Your task to perform on an android device: Go to wifi settings Image 0: 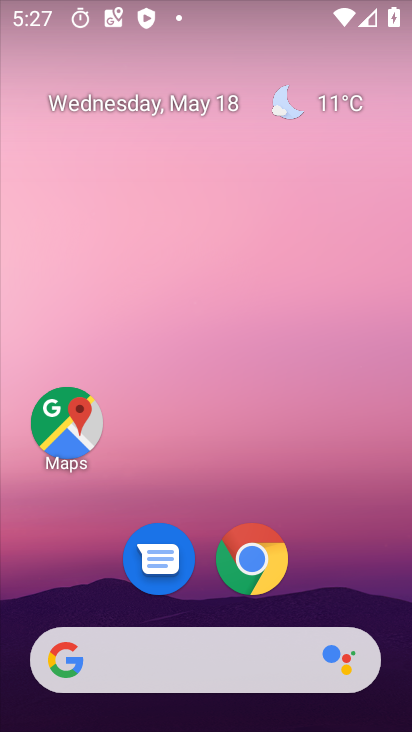
Step 0: drag from (151, 78) to (190, 557)
Your task to perform on an android device: Go to wifi settings Image 1: 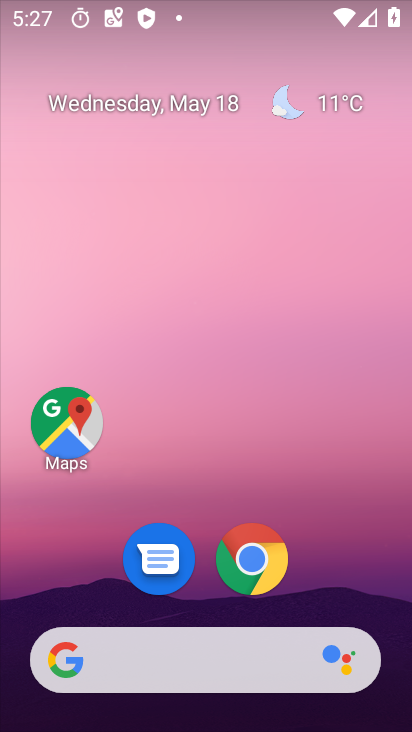
Step 1: drag from (92, 11) to (169, 563)
Your task to perform on an android device: Go to wifi settings Image 2: 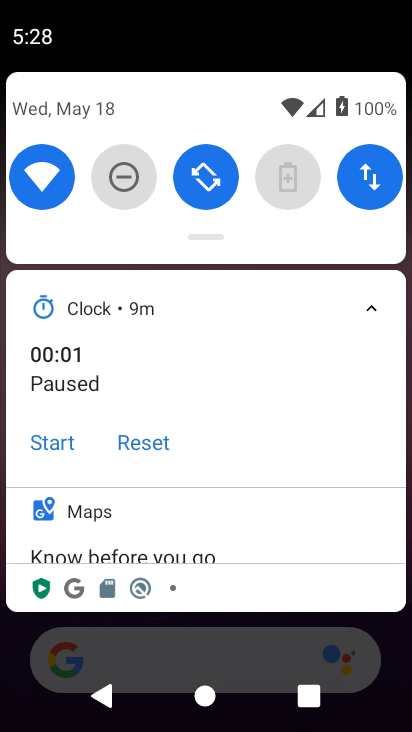
Step 2: click (49, 179)
Your task to perform on an android device: Go to wifi settings Image 3: 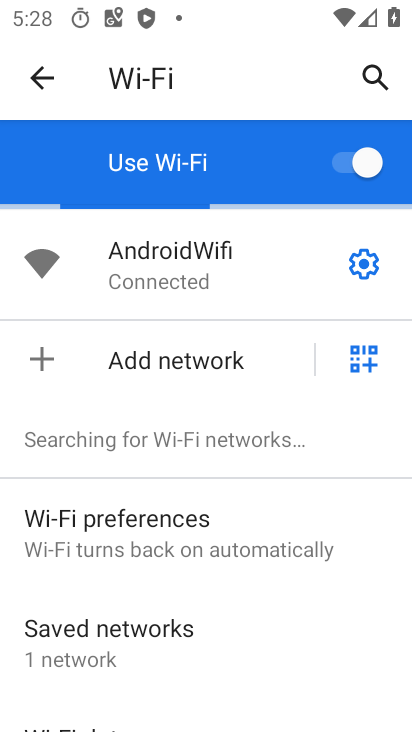
Step 3: task complete